Your task to perform on an android device: Go to Wikipedia Image 0: 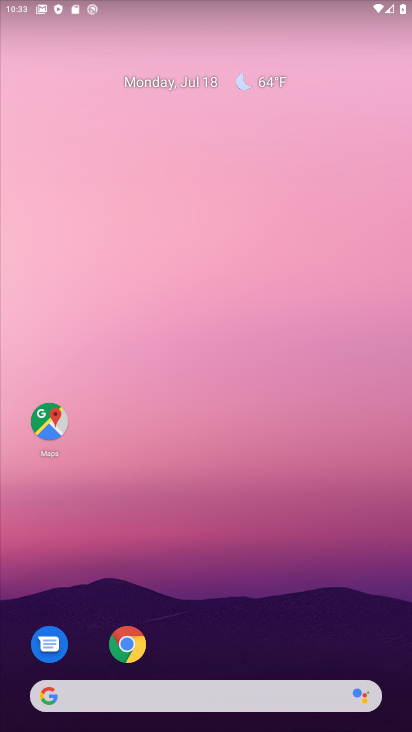
Step 0: click (132, 647)
Your task to perform on an android device: Go to Wikipedia Image 1: 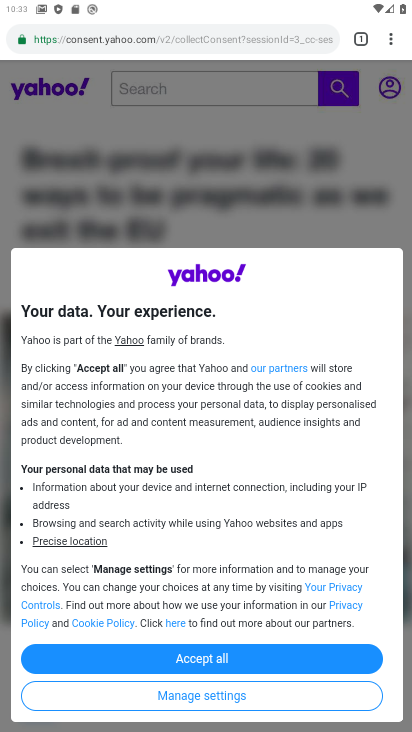
Step 1: click (102, 41)
Your task to perform on an android device: Go to Wikipedia Image 2: 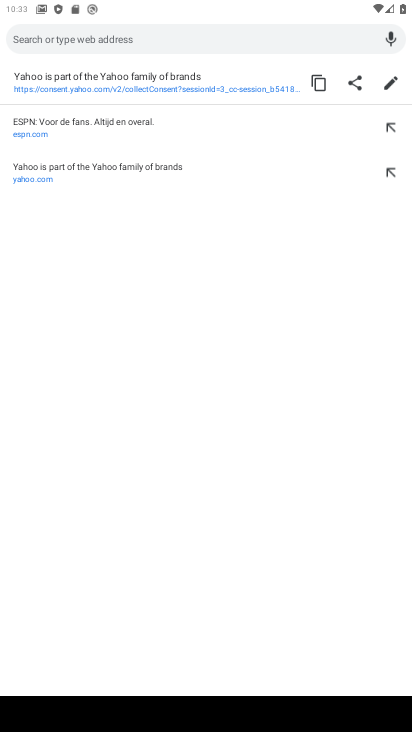
Step 2: type "wikipedia"
Your task to perform on an android device: Go to Wikipedia Image 3: 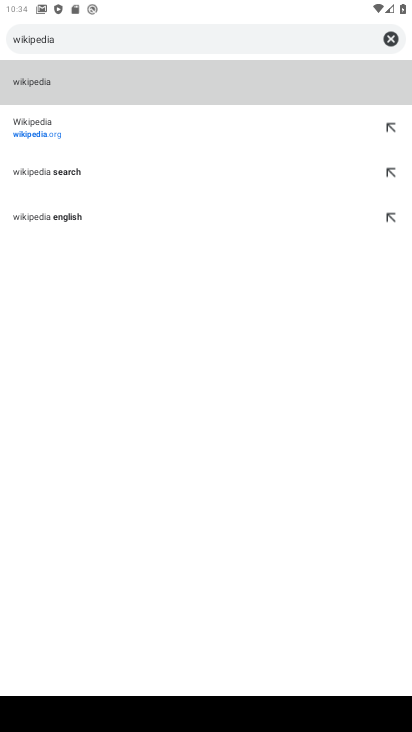
Step 3: click (99, 84)
Your task to perform on an android device: Go to Wikipedia Image 4: 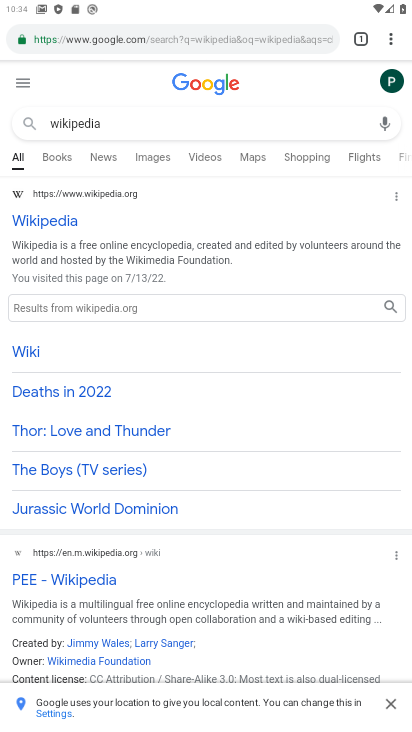
Step 4: click (45, 224)
Your task to perform on an android device: Go to Wikipedia Image 5: 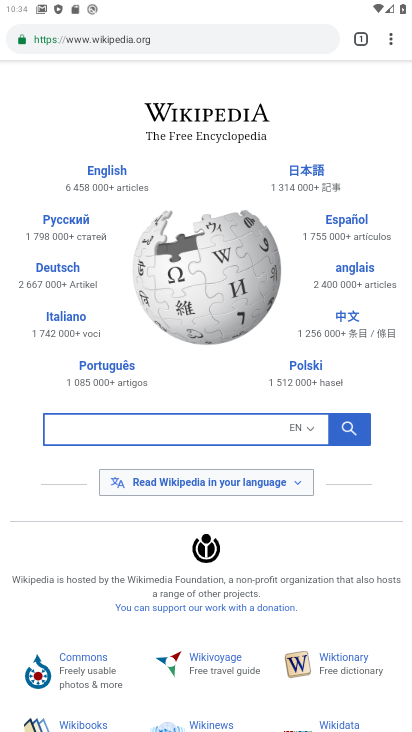
Step 5: task complete